Your task to perform on an android device: Go to wifi settings Image 0: 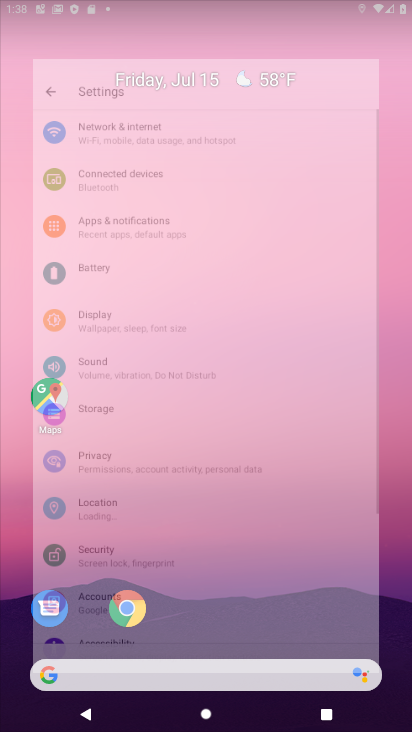
Step 0: drag from (322, 512) to (252, 114)
Your task to perform on an android device: Go to wifi settings Image 1: 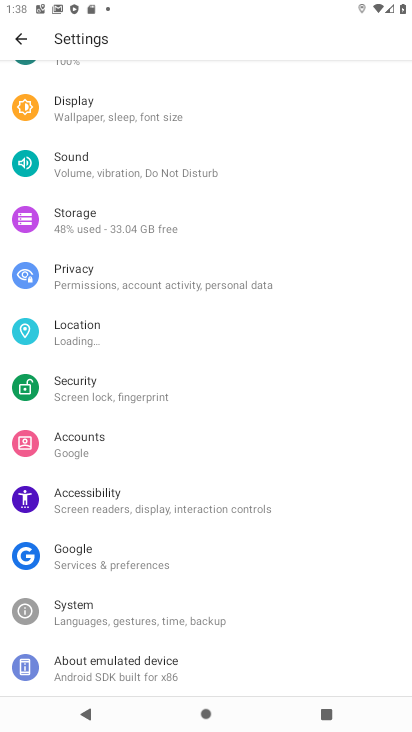
Step 1: press home button
Your task to perform on an android device: Go to wifi settings Image 2: 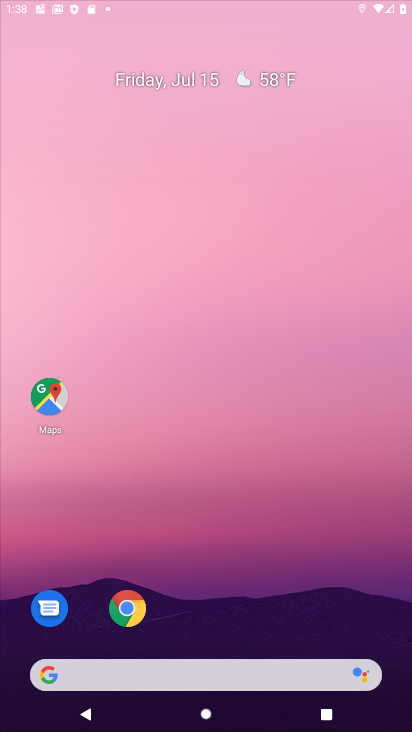
Step 2: drag from (74, 5) to (110, 355)
Your task to perform on an android device: Go to wifi settings Image 3: 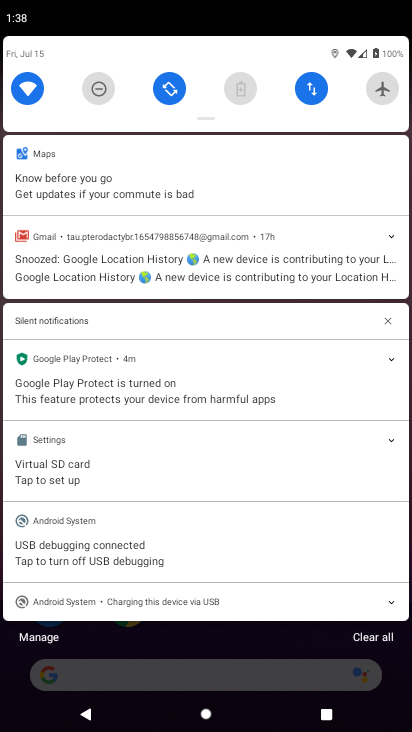
Step 3: click (25, 85)
Your task to perform on an android device: Go to wifi settings Image 4: 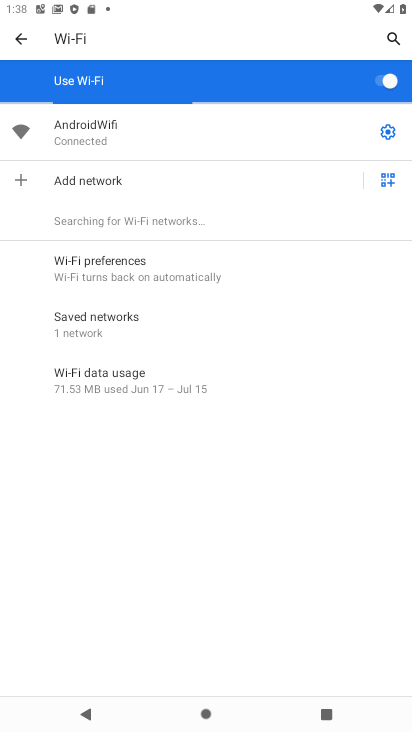
Step 4: task complete